Your task to perform on an android device: change notifications settings Image 0: 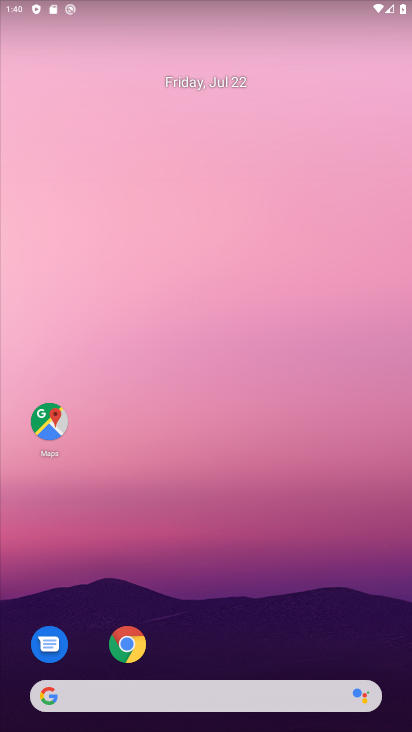
Step 0: drag from (263, 305) to (284, 19)
Your task to perform on an android device: change notifications settings Image 1: 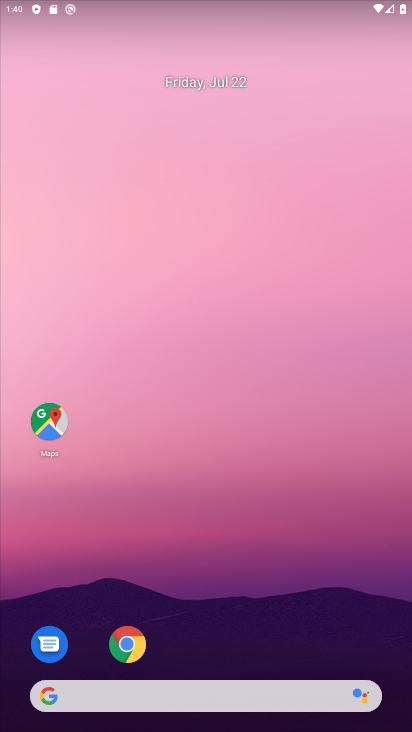
Step 1: drag from (253, 566) to (313, 15)
Your task to perform on an android device: change notifications settings Image 2: 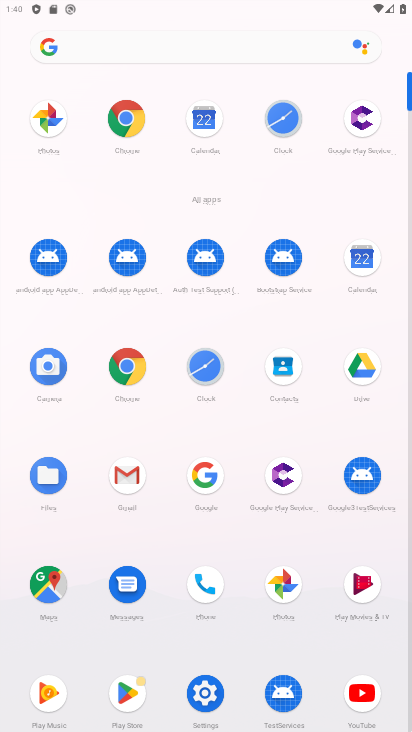
Step 2: click (203, 698)
Your task to perform on an android device: change notifications settings Image 3: 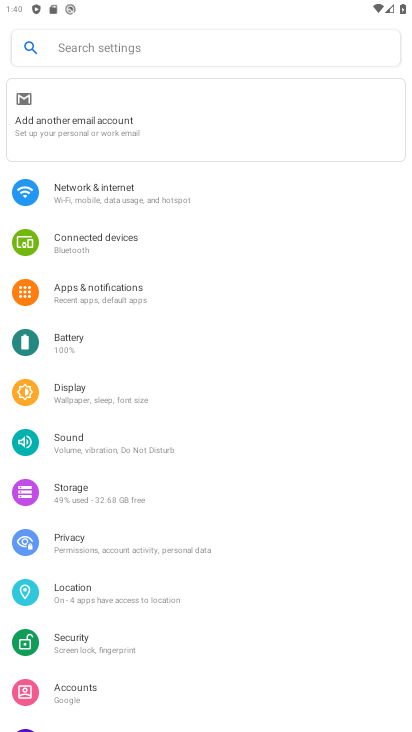
Step 3: click (150, 286)
Your task to perform on an android device: change notifications settings Image 4: 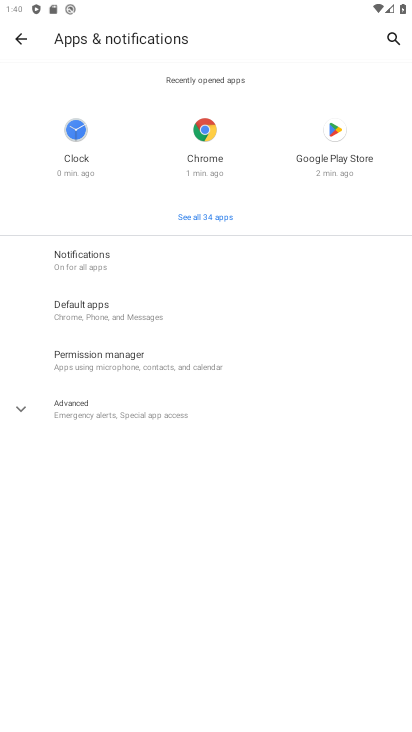
Step 4: click (106, 254)
Your task to perform on an android device: change notifications settings Image 5: 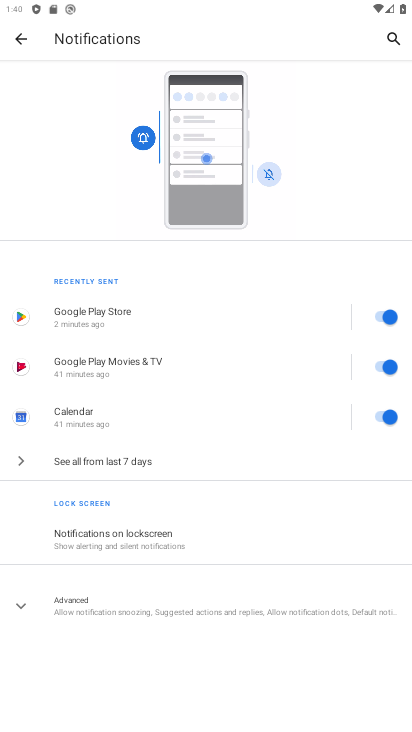
Step 5: click (117, 457)
Your task to perform on an android device: change notifications settings Image 6: 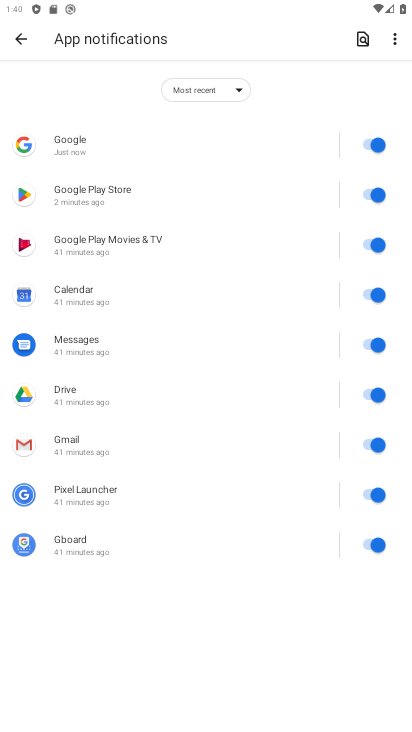
Step 6: click (374, 139)
Your task to perform on an android device: change notifications settings Image 7: 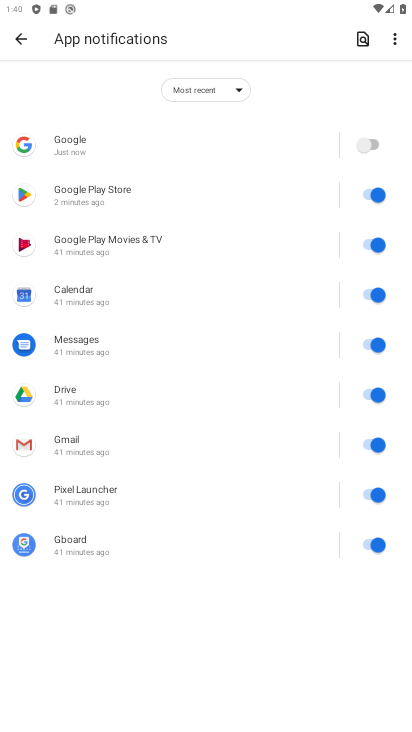
Step 7: click (373, 191)
Your task to perform on an android device: change notifications settings Image 8: 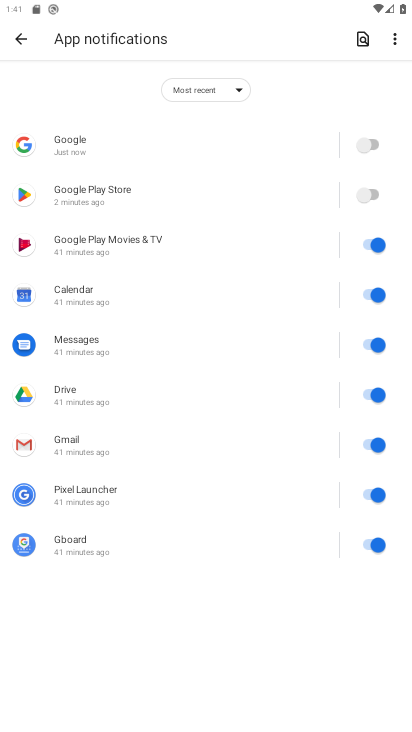
Step 8: click (373, 246)
Your task to perform on an android device: change notifications settings Image 9: 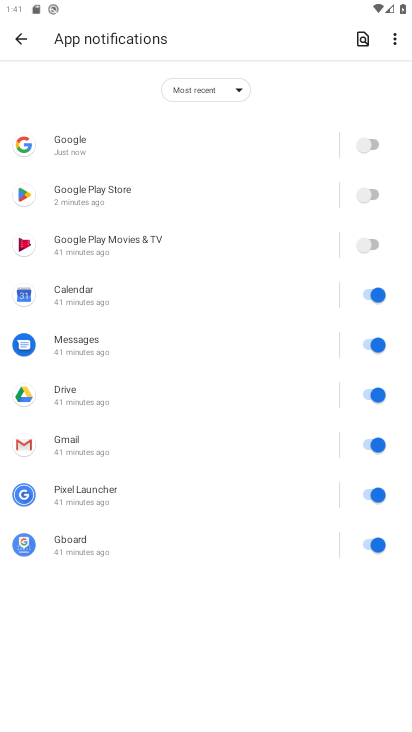
Step 9: click (377, 293)
Your task to perform on an android device: change notifications settings Image 10: 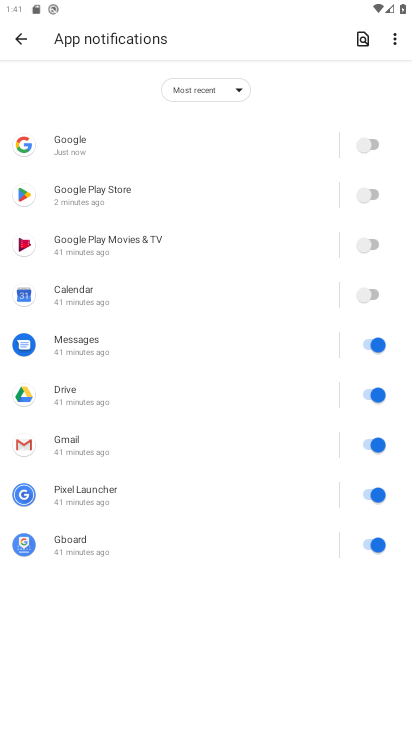
Step 10: click (372, 340)
Your task to perform on an android device: change notifications settings Image 11: 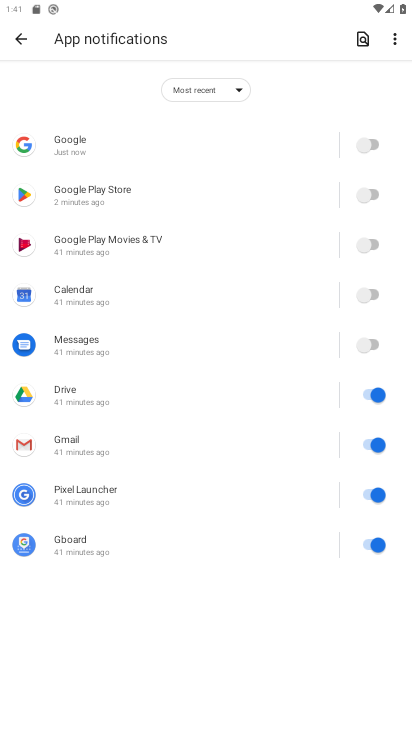
Step 11: click (374, 393)
Your task to perform on an android device: change notifications settings Image 12: 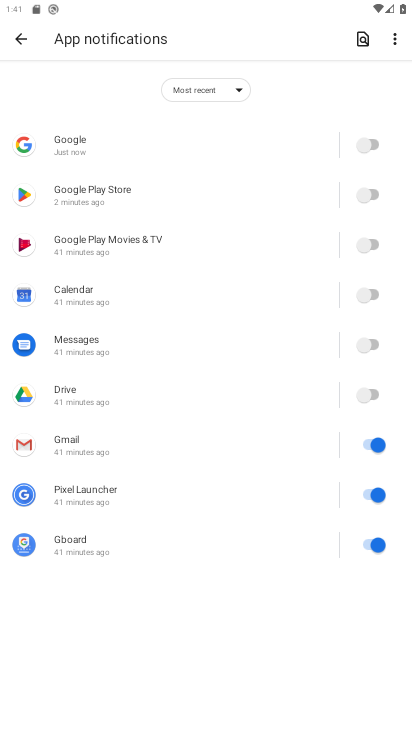
Step 12: click (374, 447)
Your task to perform on an android device: change notifications settings Image 13: 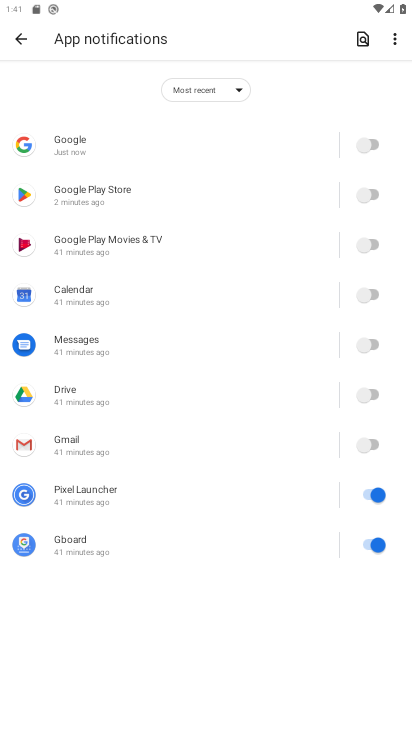
Step 13: click (374, 500)
Your task to perform on an android device: change notifications settings Image 14: 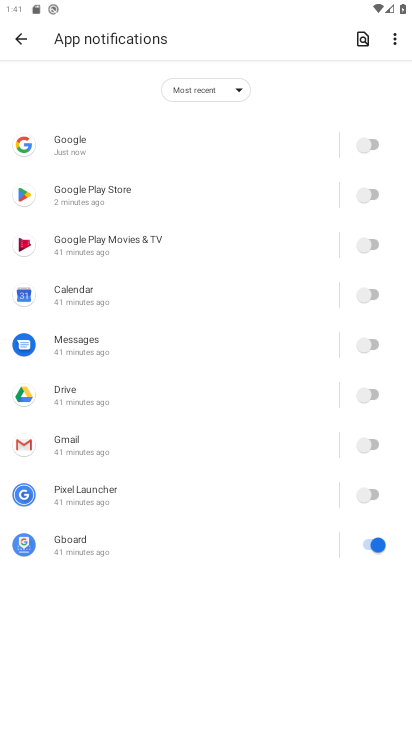
Step 14: click (376, 544)
Your task to perform on an android device: change notifications settings Image 15: 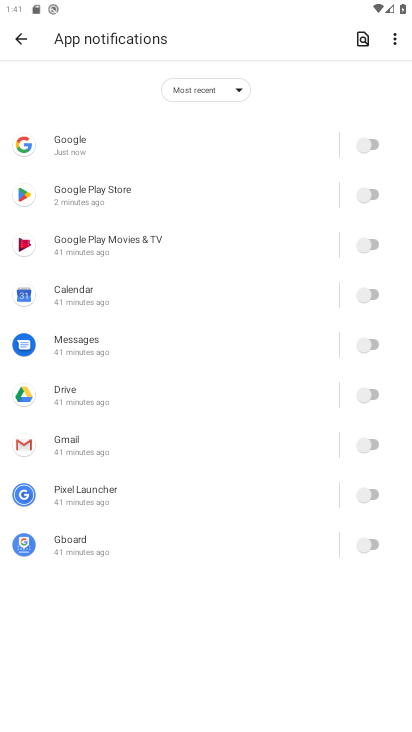
Step 15: click (16, 36)
Your task to perform on an android device: change notifications settings Image 16: 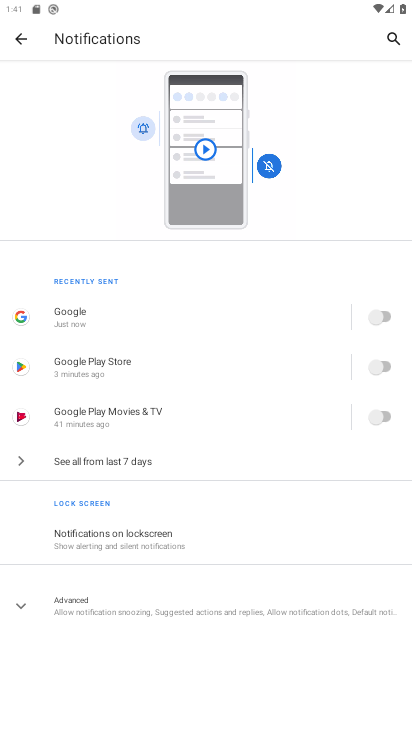
Step 16: click (158, 532)
Your task to perform on an android device: change notifications settings Image 17: 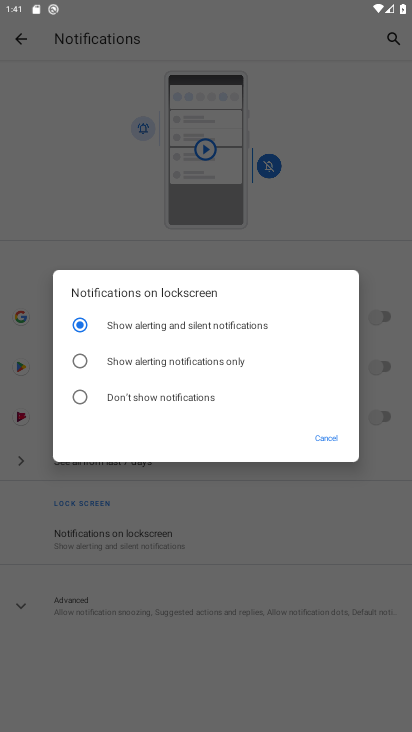
Step 17: click (149, 361)
Your task to perform on an android device: change notifications settings Image 18: 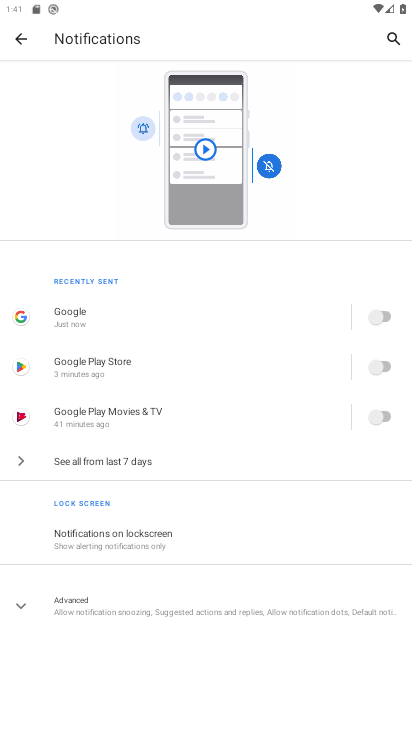
Step 18: click (141, 599)
Your task to perform on an android device: change notifications settings Image 19: 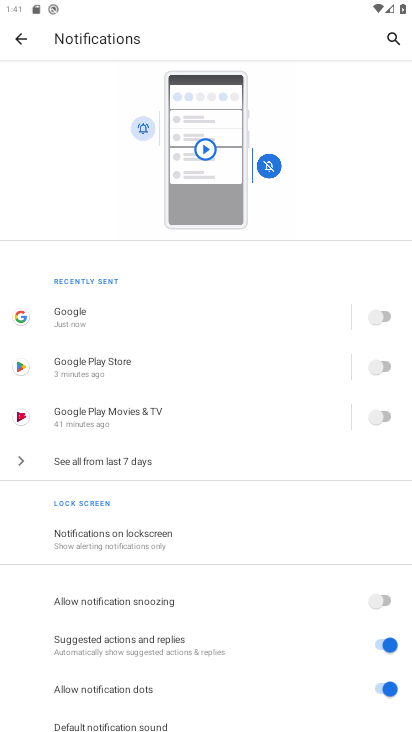
Step 19: click (376, 602)
Your task to perform on an android device: change notifications settings Image 20: 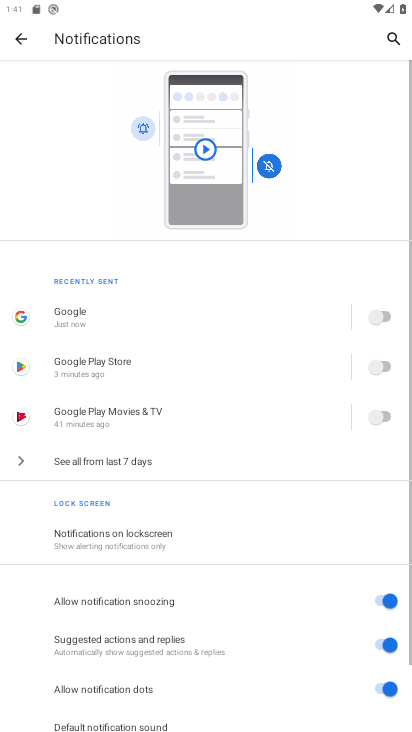
Step 20: click (387, 627)
Your task to perform on an android device: change notifications settings Image 21: 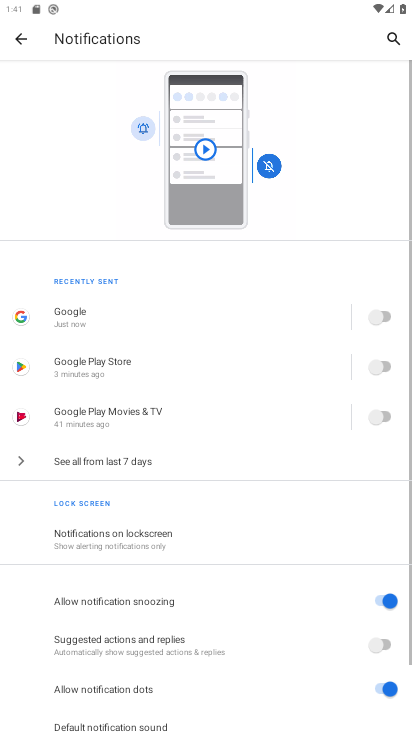
Step 21: click (388, 675)
Your task to perform on an android device: change notifications settings Image 22: 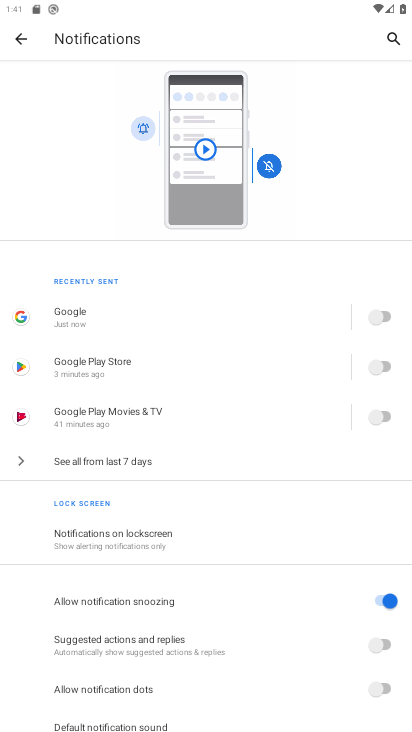
Step 22: task complete